Your task to perform on an android device: turn off location history Image 0: 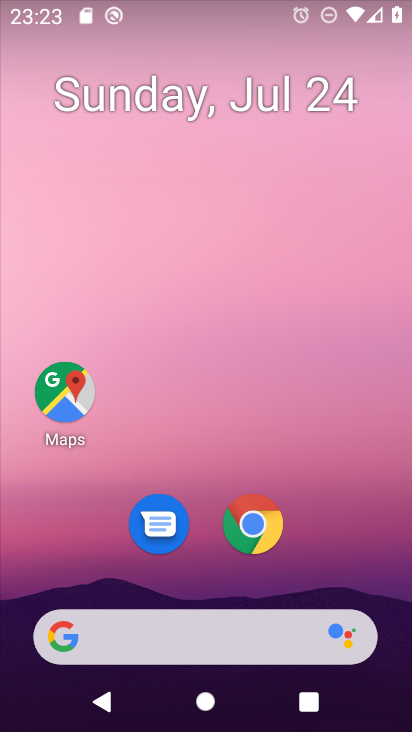
Step 0: press home button
Your task to perform on an android device: turn off location history Image 1: 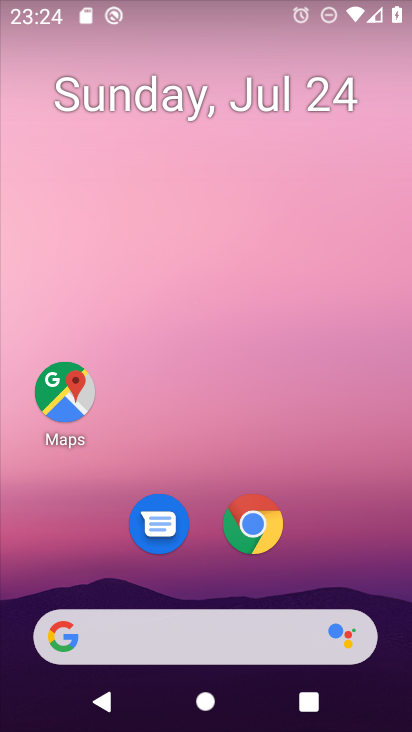
Step 1: click (72, 396)
Your task to perform on an android device: turn off location history Image 2: 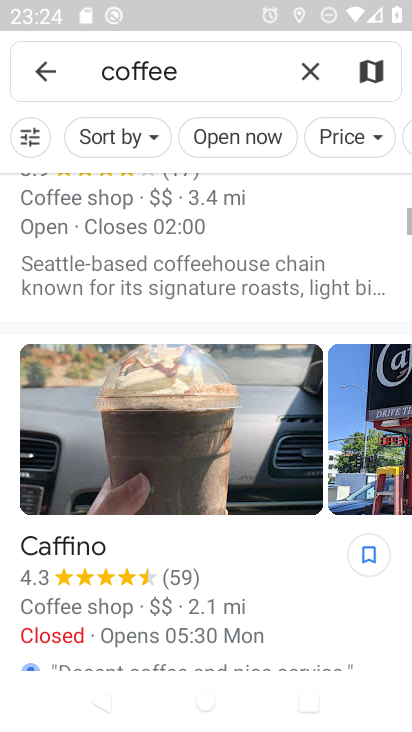
Step 2: click (47, 64)
Your task to perform on an android device: turn off location history Image 3: 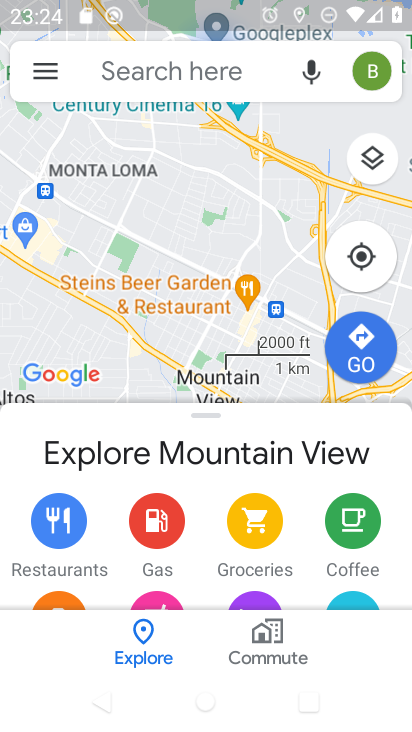
Step 3: click (46, 69)
Your task to perform on an android device: turn off location history Image 4: 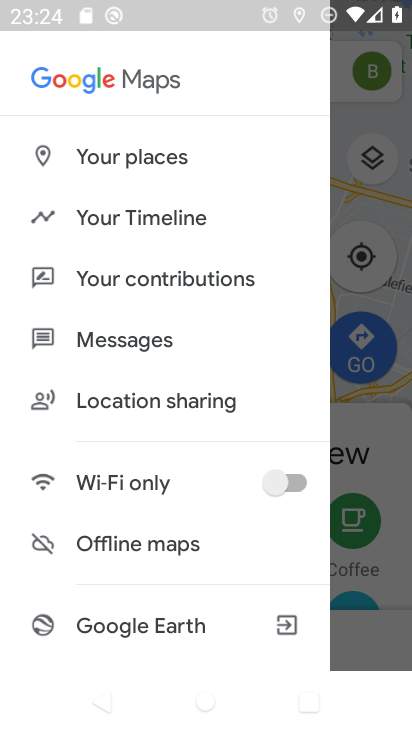
Step 4: click (178, 217)
Your task to perform on an android device: turn off location history Image 5: 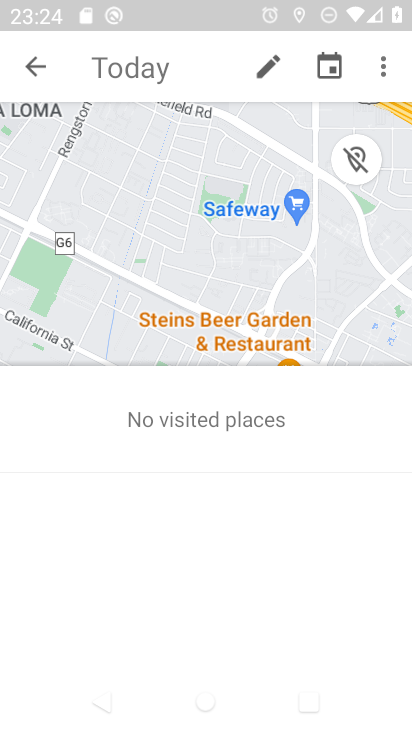
Step 5: click (382, 74)
Your task to perform on an android device: turn off location history Image 6: 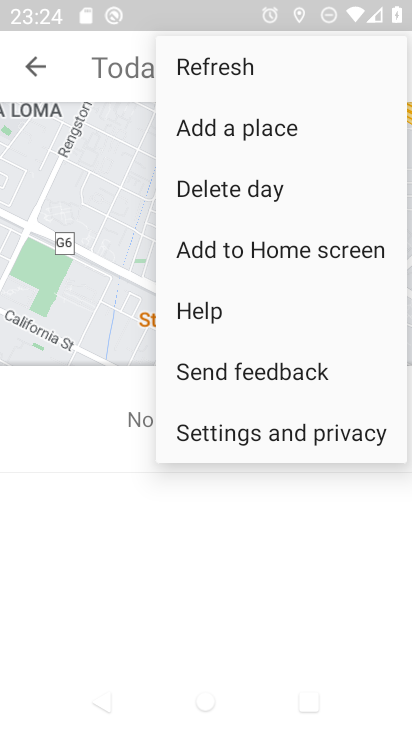
Step 6: click (252, 436)
Your task to perform on an android device: turn off location history Image 7: 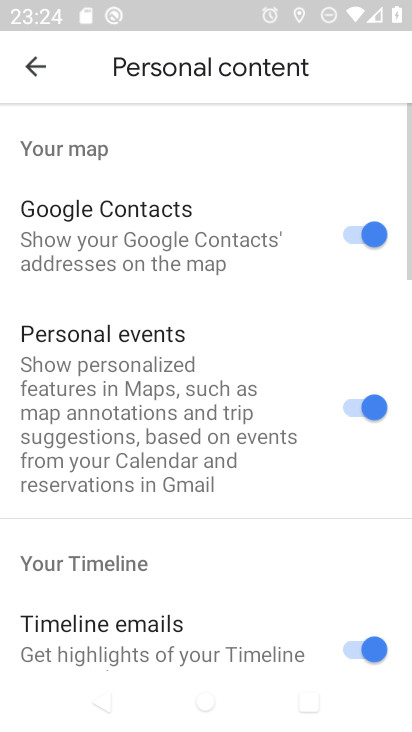
Step 7: drag from (187, 613) to (340, 59)
Your task to perform on an android device: turn off location history Image 8: 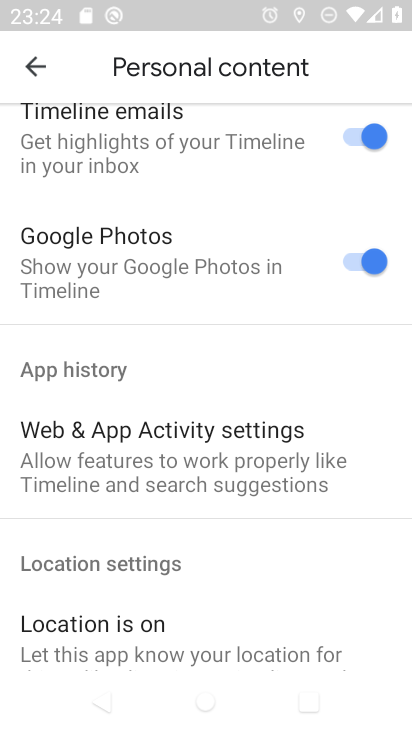
Step 8: drag from (261, 549) to (319, 105)
Your task to perform on an android device: turn off location history Image 9: 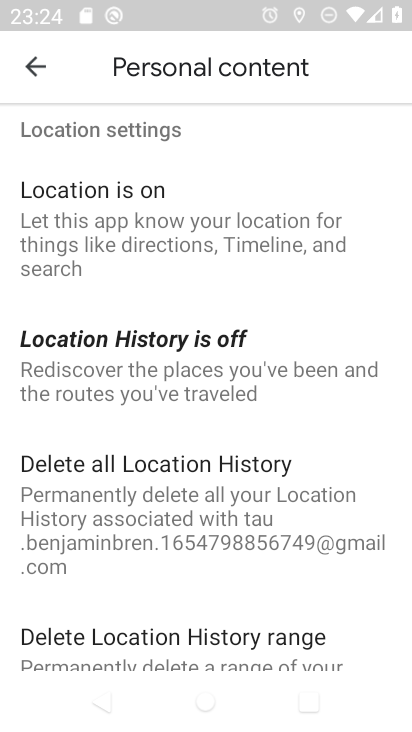
Step 9: click (204, 366)
Your task to perform on an android device: turn off location history Image 10: 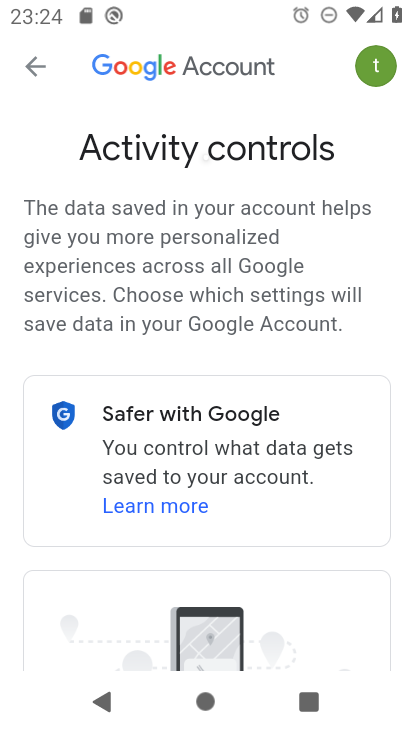
Step 10: task complete